Your task to perform on an android device: set the stopwatch Image 0: 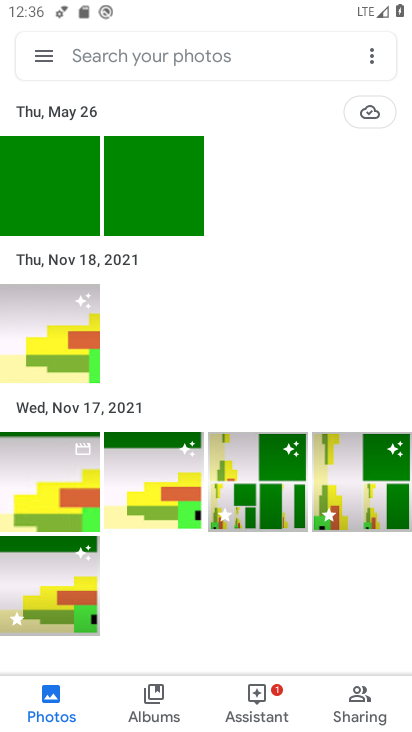
Step 0: press home button
Your task to perform on an android device: set the stopwatch Image 1: 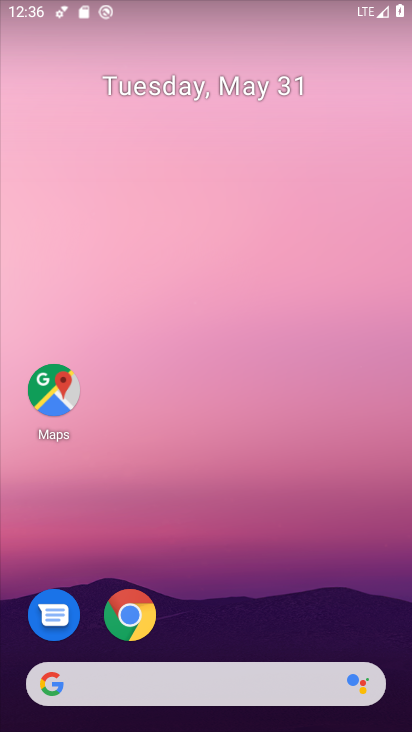
Step 1: drag from (211, 590) to (259, 6)
Your task to perform on an android device: set the stopwatch Image 2: 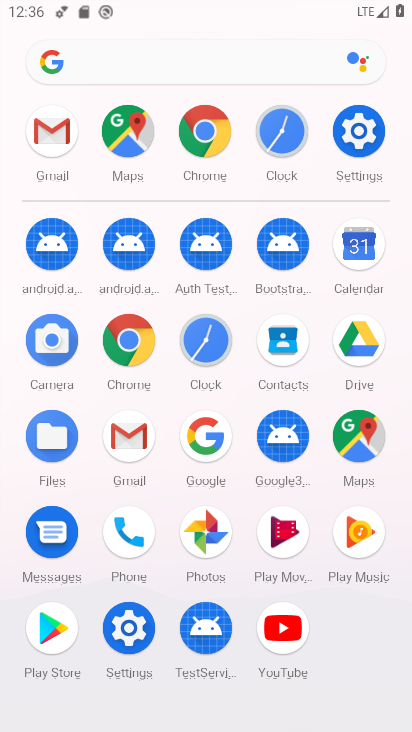
Step 2: click (204, 339)
Your task to perform on an android device: set the stopwatch Image 3: 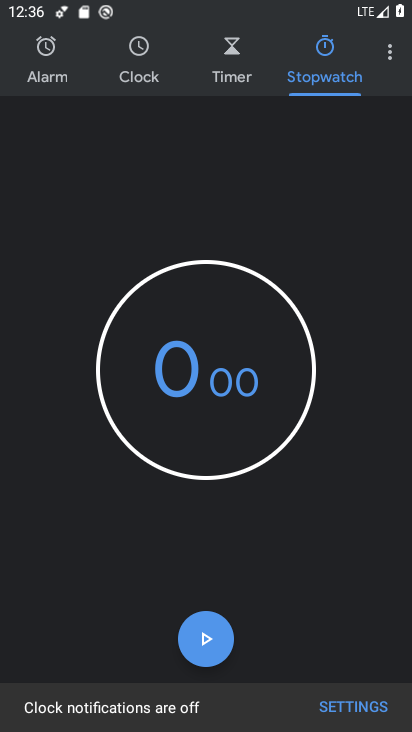
Step 3: click (193, 651)
Your task to perform on an android device: set the stopwatch Image 4: 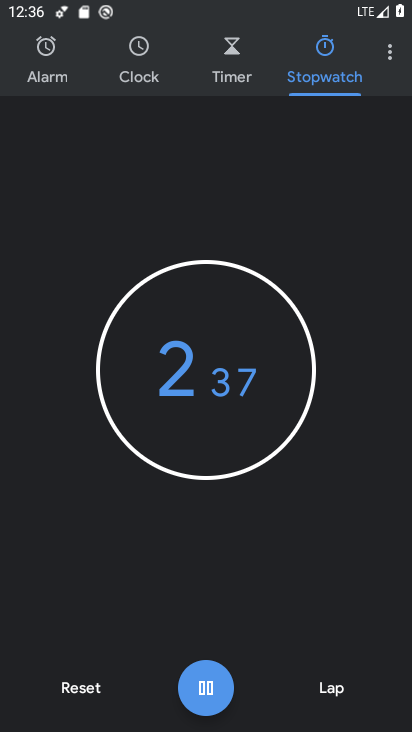
Step 4: task complete